Your task to perform on an android device: Go to eBay Image 0: 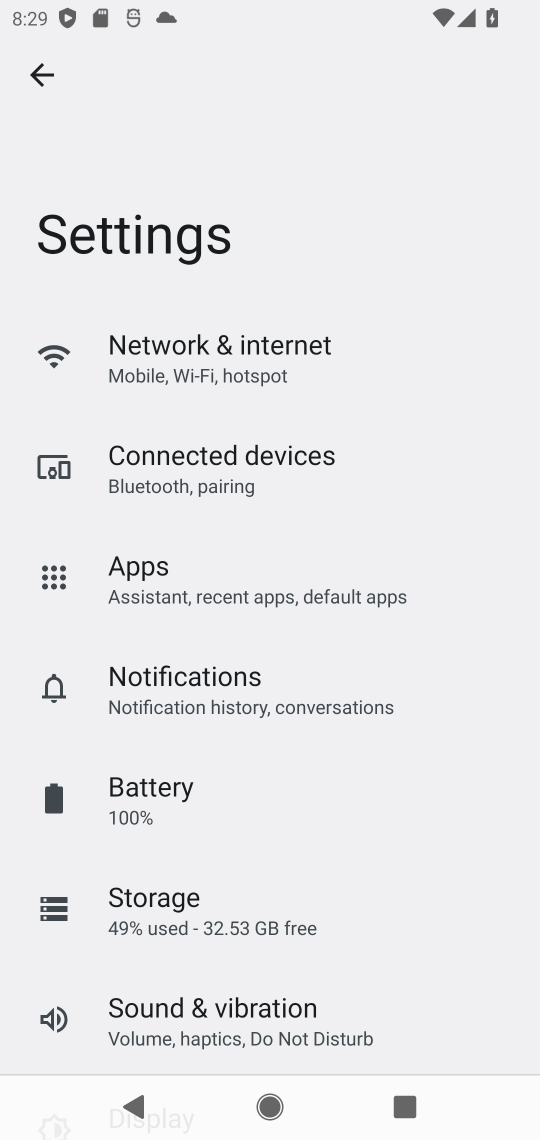
Step 0: press home button
Your task to perform on an android device: Go to eBay Image 1: 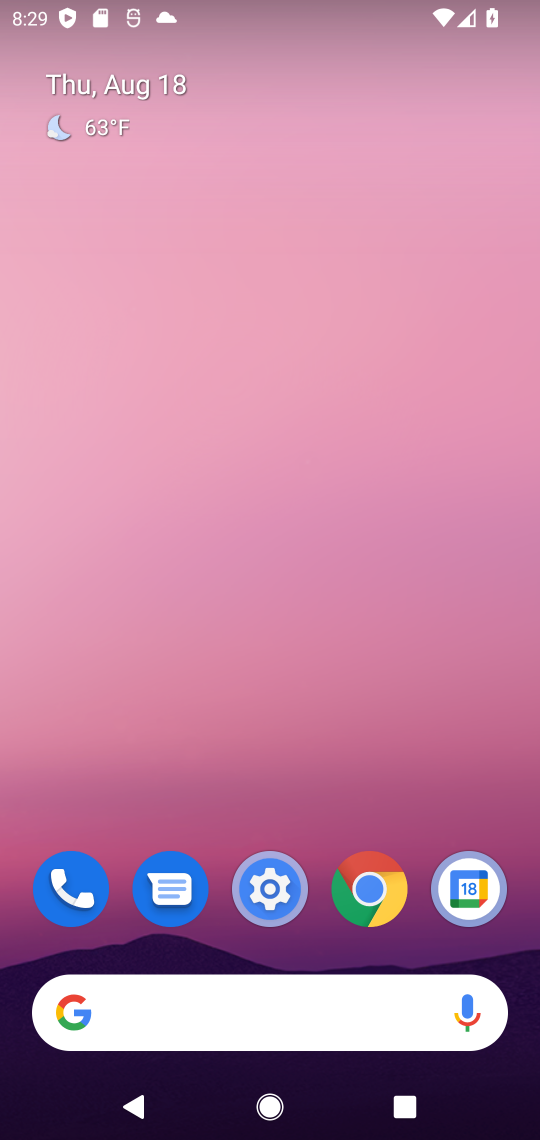
Step 1: click (67, 1011)
Your task to perform on an android device: Go to eBay Image 2: 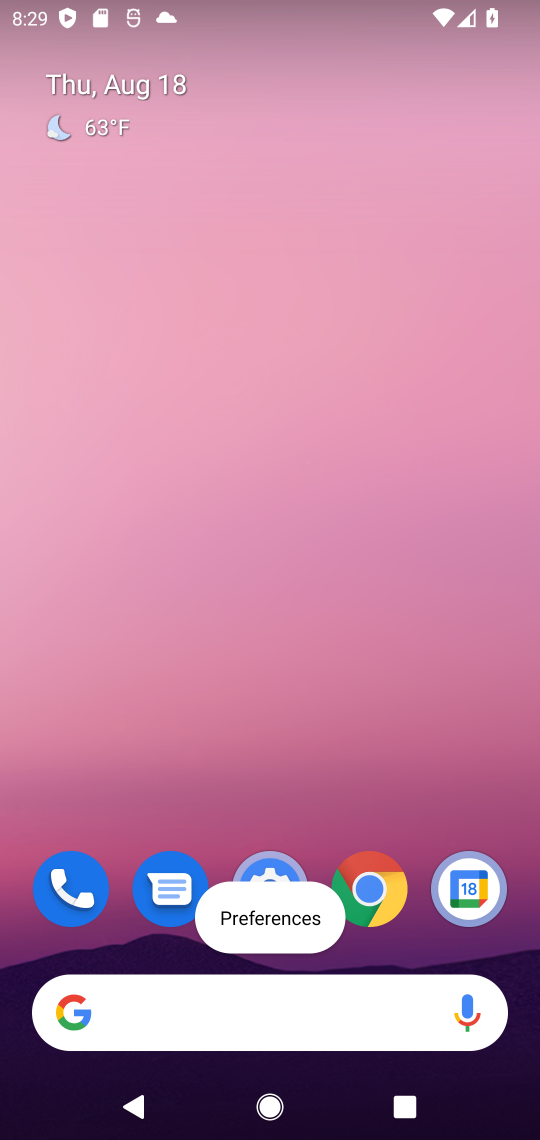
Step 2: click (63, 1012)
Your task to perform on an android device: Go to eBay Image 3: 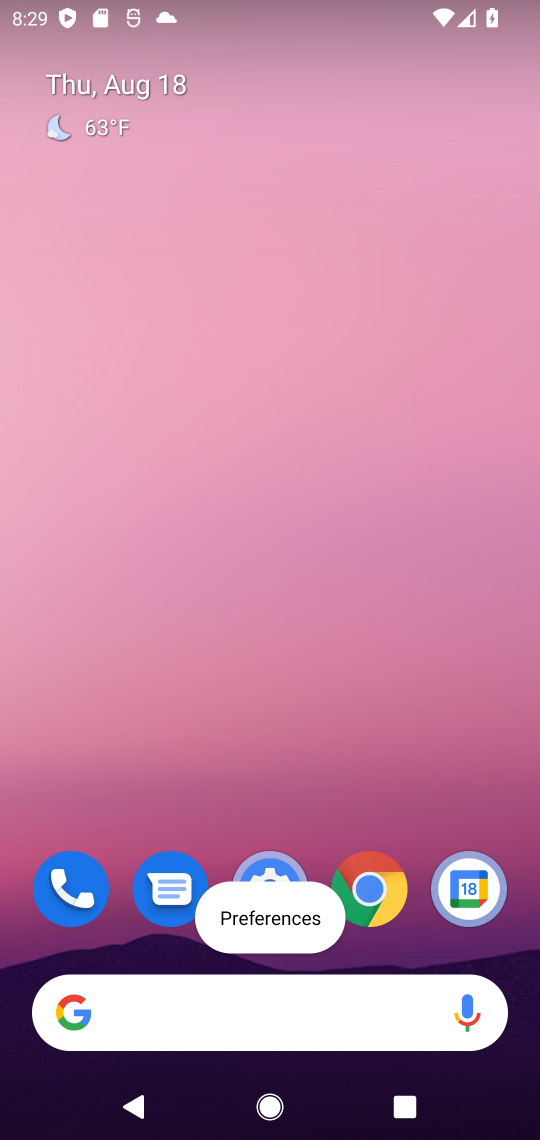
Step 3: click (55, 1026)
Your task to perform on an android device: Go to eBay Image 4: 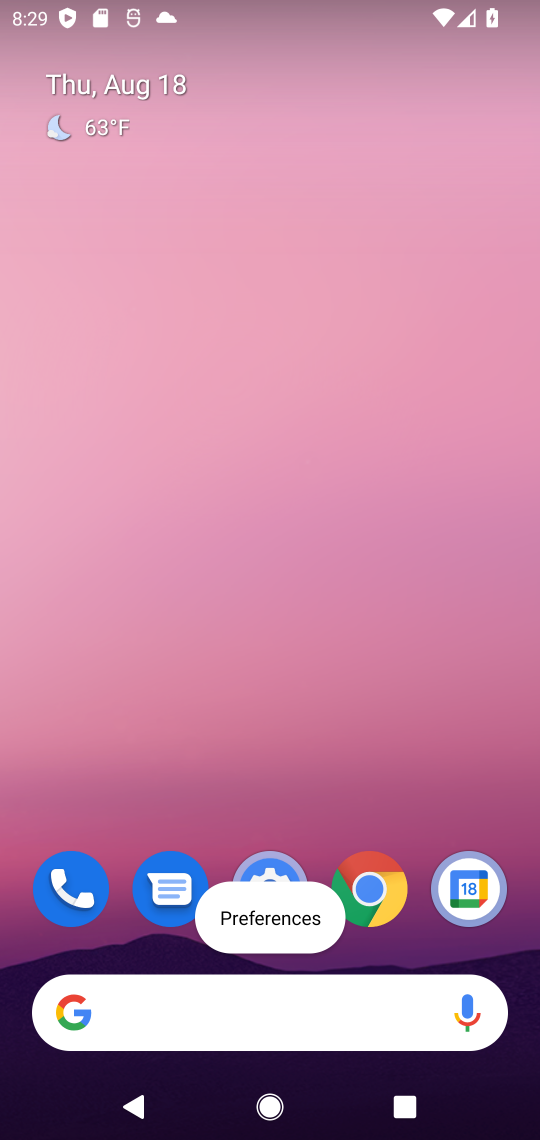
Step 4: click (56, 1020)
Your task to perform on an android device: Go to eBay Image 5: 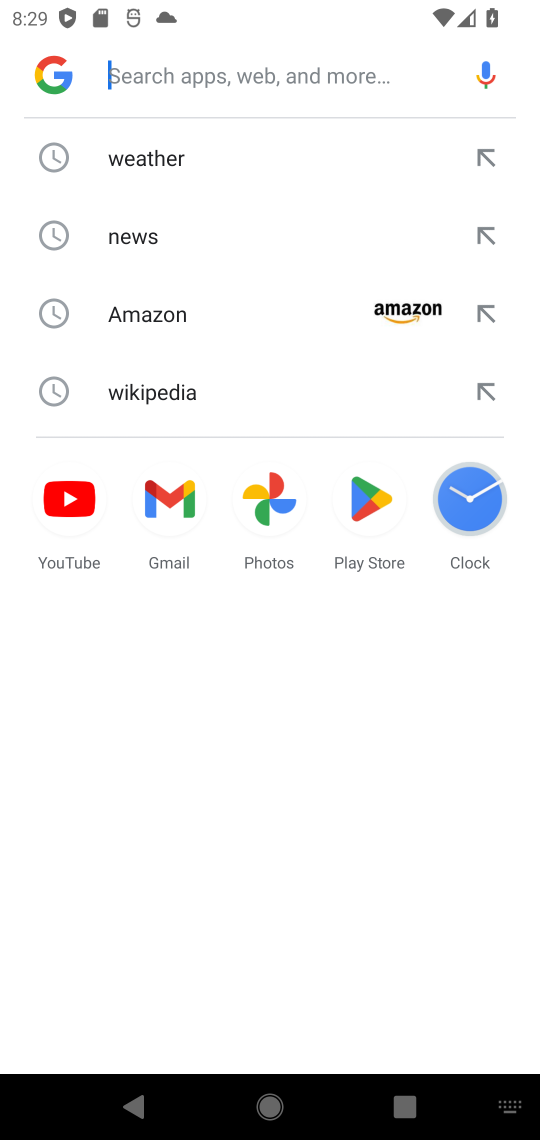
Step 5: type "eBay"
Your task to perform on an android device: Go to eBay Image 6: 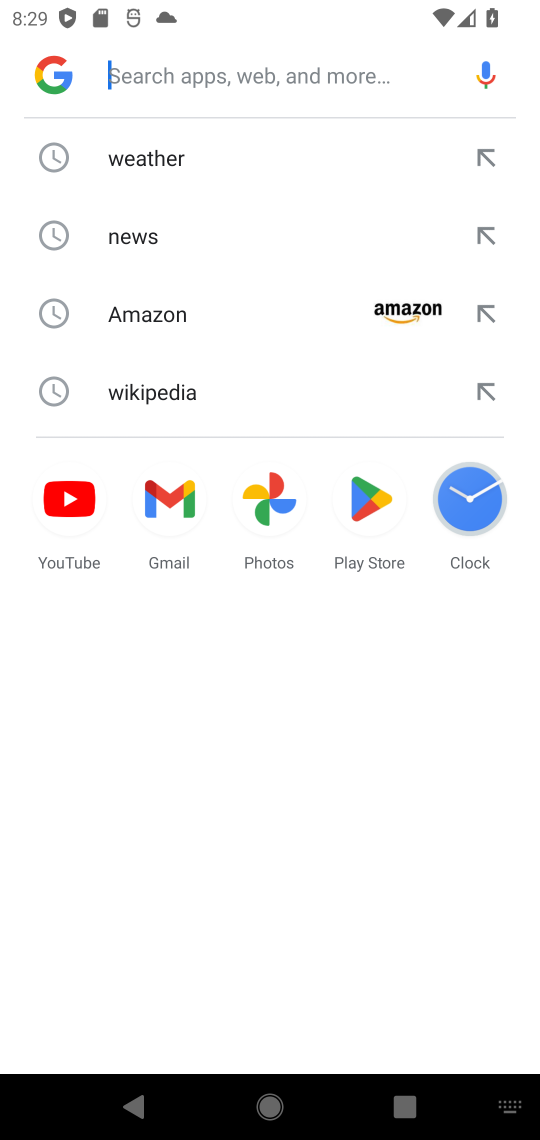
Step 6: click (123, 74)
Your task to perform on an android device: Go to eBay Image 7: 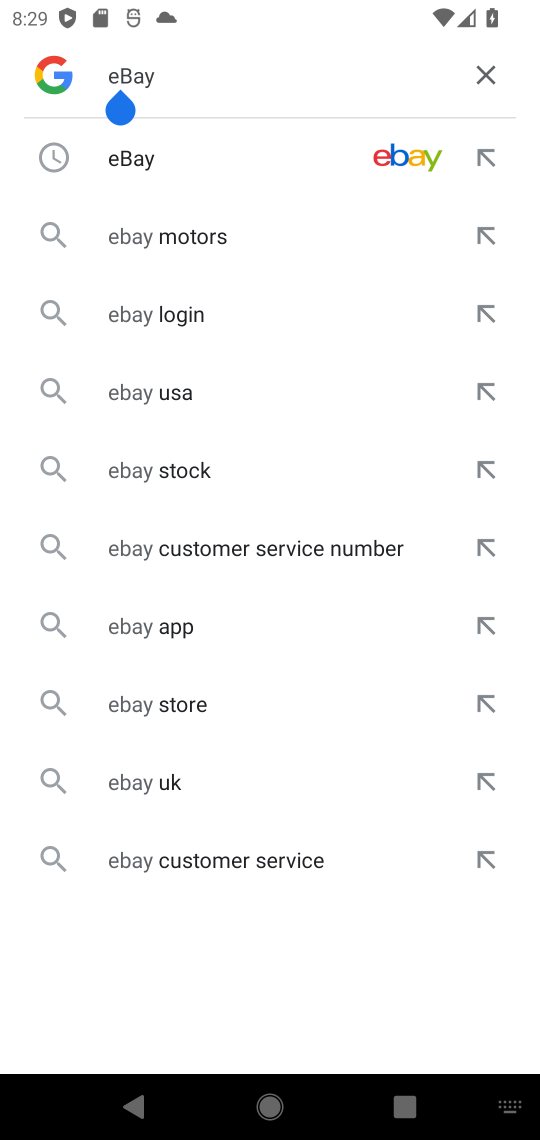
Step 7: click (412, 140)
Your task to perform on an android device: Go to eBay Image 8: 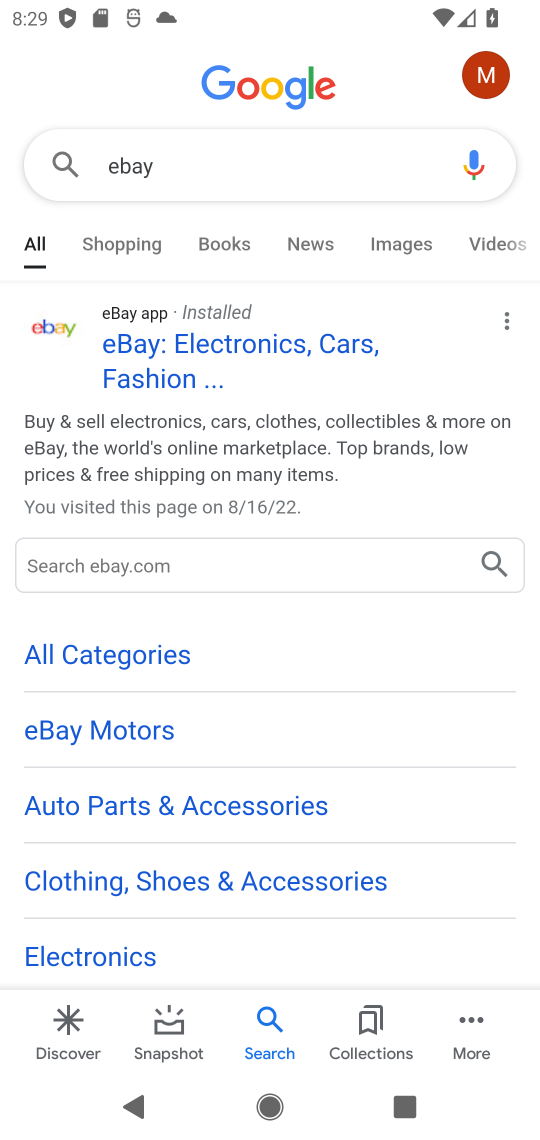
Step 8: drag from (434, 962) to (246, 301)
Your task to perform on an android device: Go to eBay Image 9: 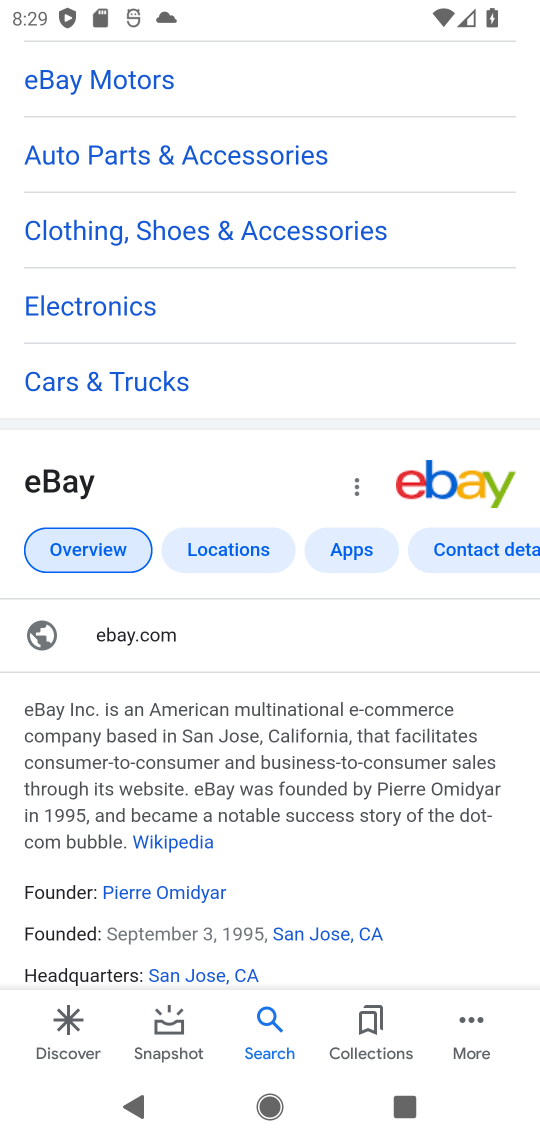
Step 9: click (129, 630)
Your task to perform on an android device: Go to eBay Image 10: 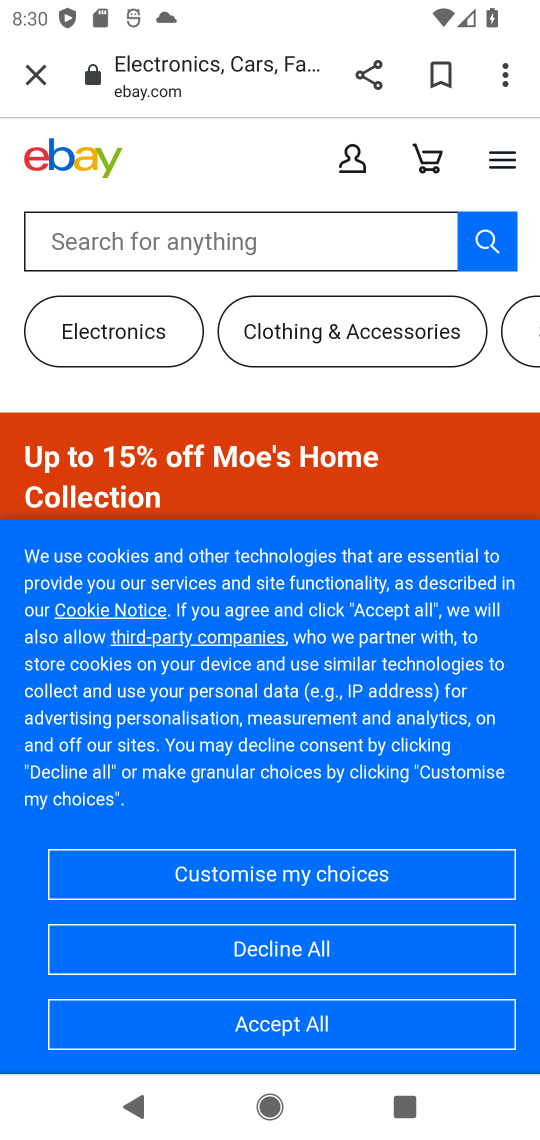
Step 10: task complete